Your task to perform on an android device: Open Google Maps Image 0: 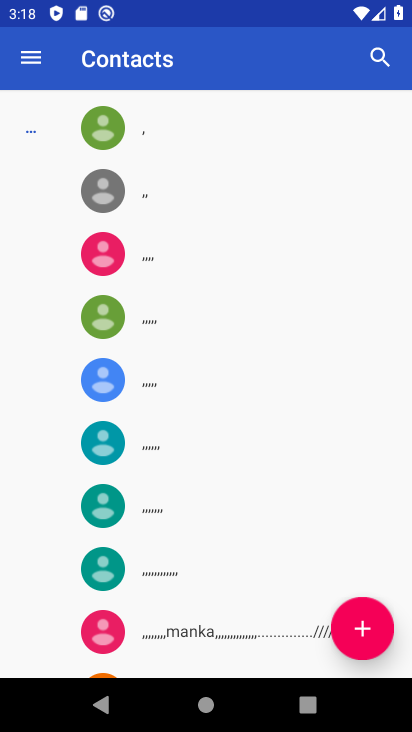
Step 0: click (124, 545)
Your task to perform on an android device: Open Google Maps Image 1: 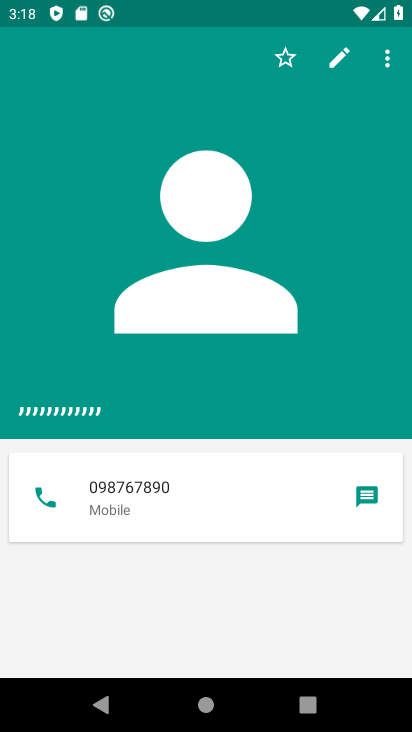
Step 1: press home button
Your task to perform on an android device: Open Google Maps Image 2: 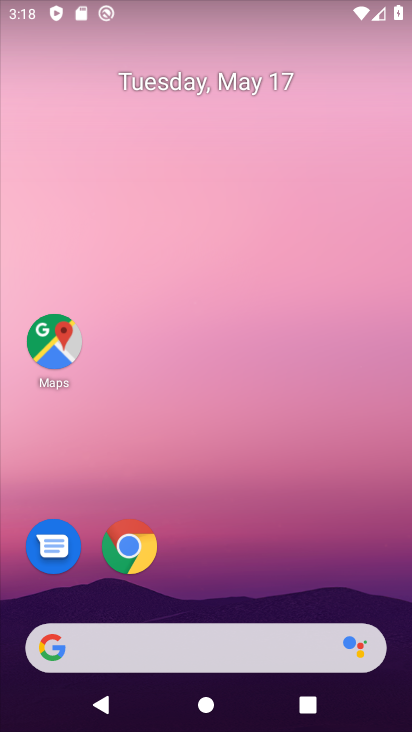
Step 2: click (49, 345)
Your task to perform on an android device: Open Google Maps Image 3: 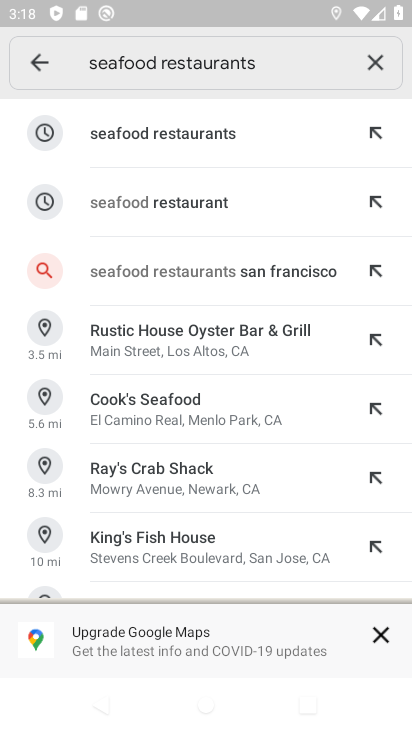
Step 3: task complete